Your task to perform on an android device: Search for sushi restaurants on Maps Image 0: 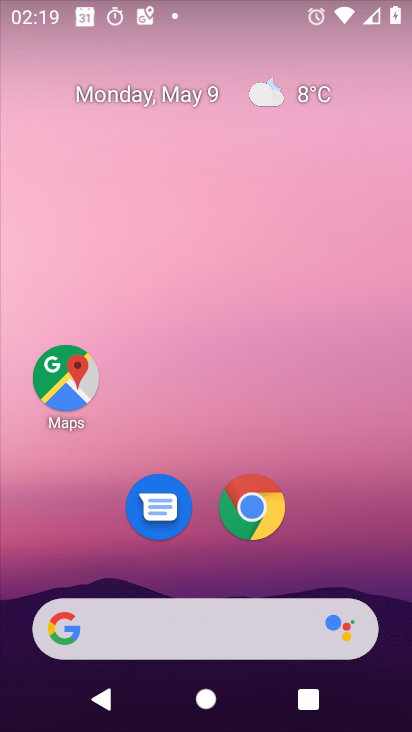
Step 0: drag from (222, 473) to (222, 233)
Your task to perform on an android device: Search for sushi restaurants on Maps Image 1: 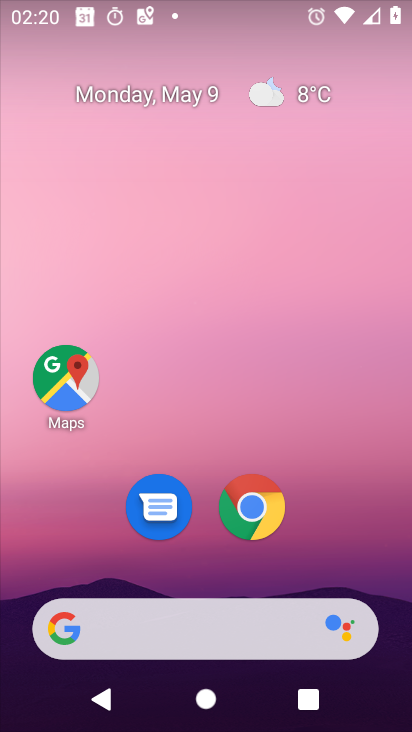
Step 1: drag from (225, 728) to (226, 140)
Your task to perform on an android device: Search for sushi restaurants on Maps Image 2: 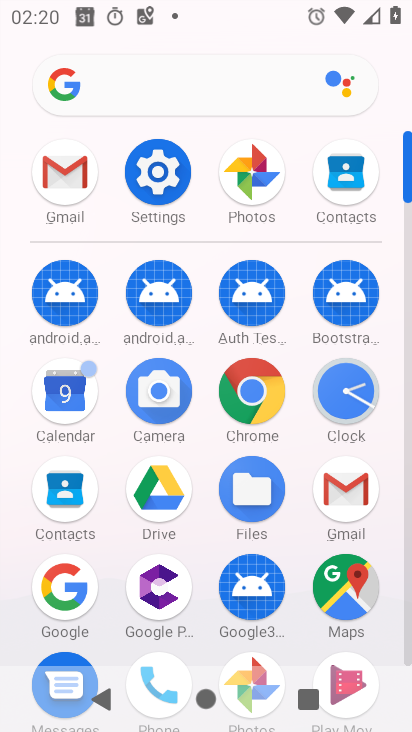
Step 2: click (343, 588)
Your task to perform on an android device: Search for sushi restaurants on Maps Image 3: 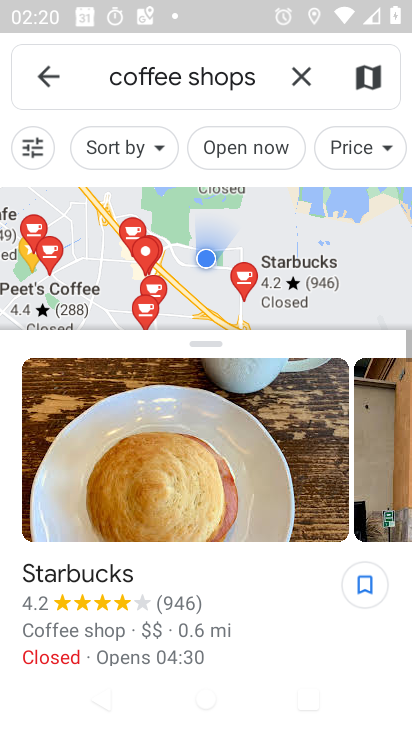
Step 3: click (298, 74)
Your task to perform on an android device: Search for sushi restaurants on Maps Image 4: 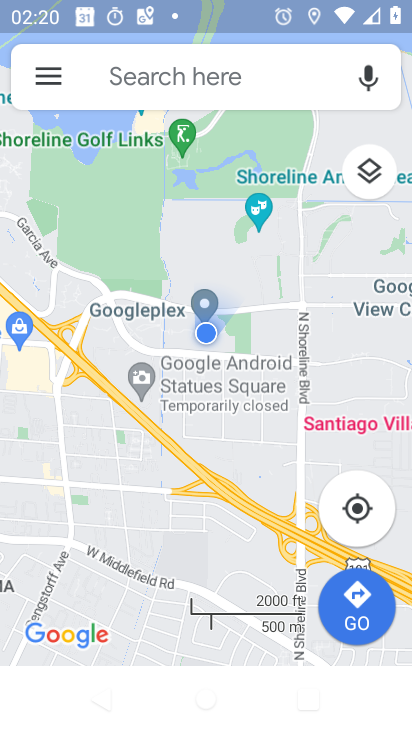
Step 4: click (193, 79)
Your task to perform on an android device: Search for sushi restaurants on Maps Image 5: 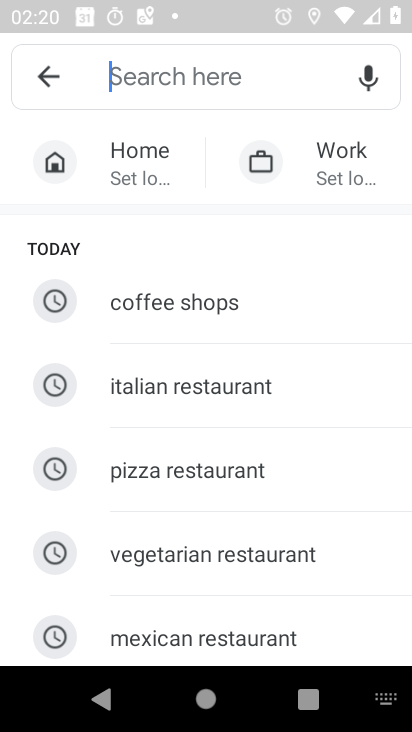
Step 5: type "sushi restaurants"
Your task to perform on an android device: Search for sushi restaurants on Maps Image 6: 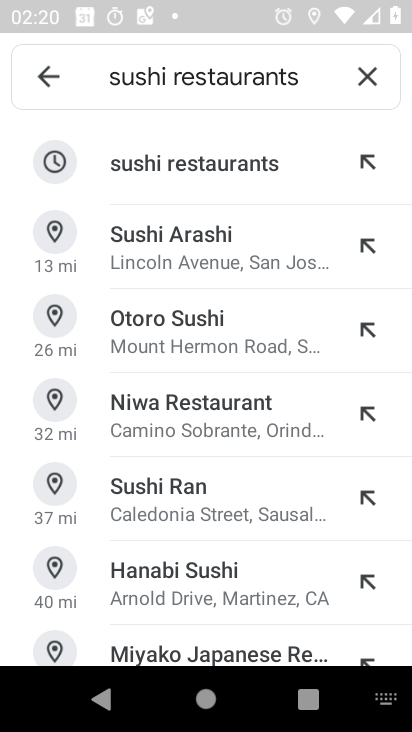
Step 6: click (179, 163)
Your task to perform on an android device: Search for sushi restaurants on Maps Image 7: 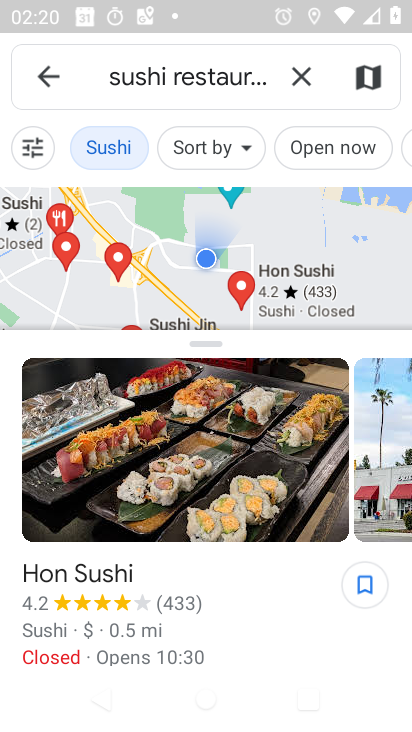
Step 7: task complete